Your task to perform on an android device: turn pop-ups on in chrome Image 0: 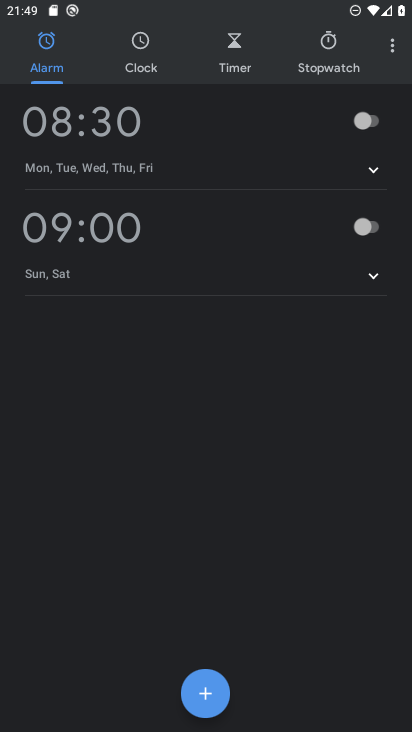
Step 0: press home button
Your task to perform on an android device: turn pop-ups on in chrome Image 1: 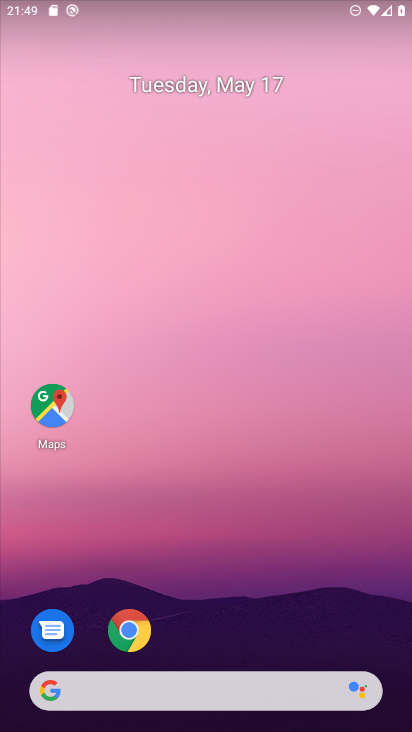
Step 1: drag from (275, 605) to (288, 189)
Your task to perform on an android device: turn pop-ups on in chrome Image 2: 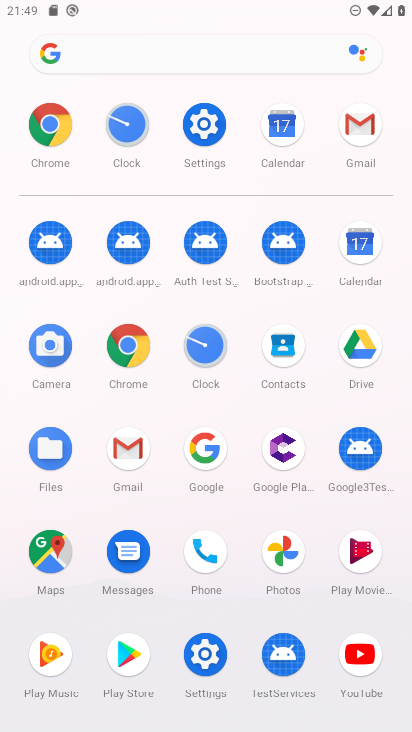
Step 2: click (148, 354)
Your task to perform on an android device: turn pop-ups on in chrome Image 3: 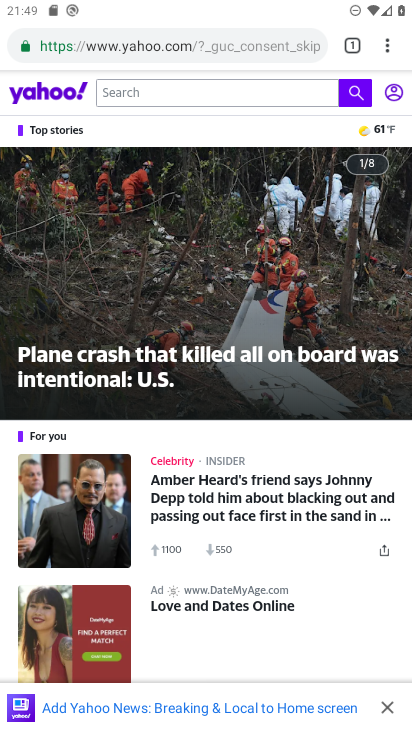
Step 3: click (388, 54)
Your task to perform on an android device: turn pop-ups on in chrome Image 4: 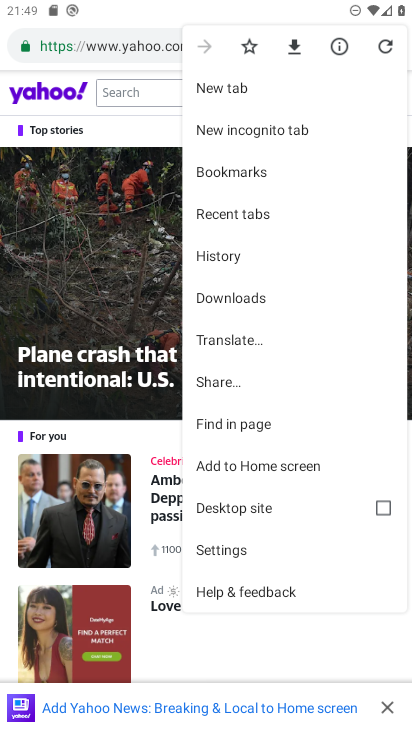
Step 4: click (249, 558)
Your task to perform on an android device: turn pop-ups on in chrome Image 5: 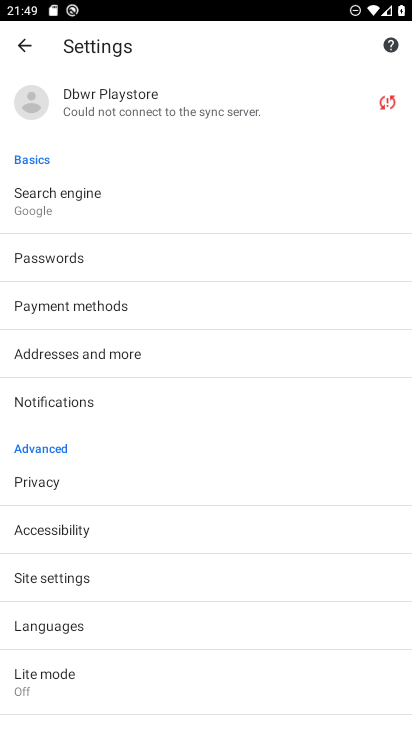
Step 5: drag from (292, 563) to (290, 412)
Your task to perform on an android device: turn pop-ups on in chrome Image 6: 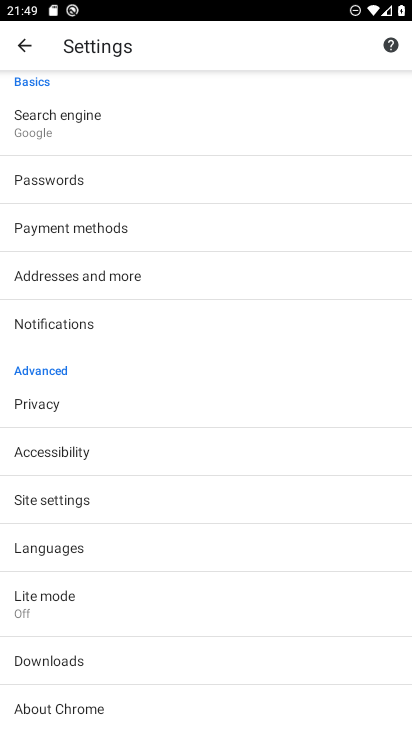
Step 6: drag from (272, 577) to (270, 475)
Your task to perform on an android device: turn pop-ups on in chrome Image 7: 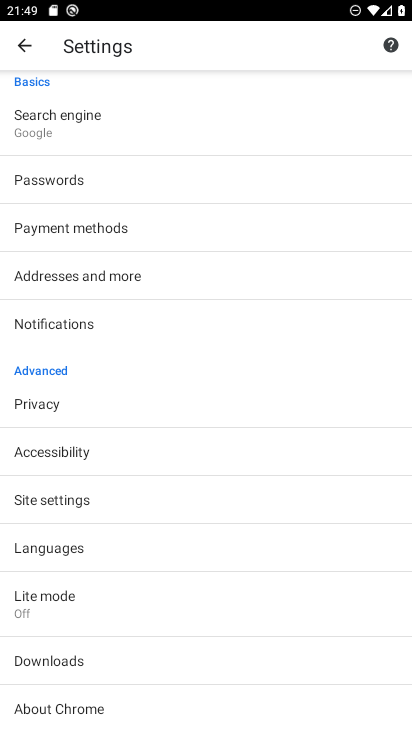
Step 7: drag from (289, 612) to (288, 435)
Your task to perform on an android device: turn pop-ups on in chrome Image 8: 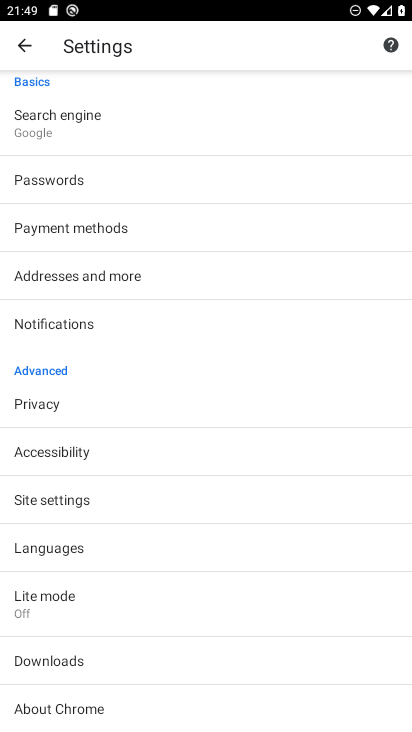
Step 8: click (231, 505)
Your task to perform on an android device: turn pop-ups on in chrome Image 9: 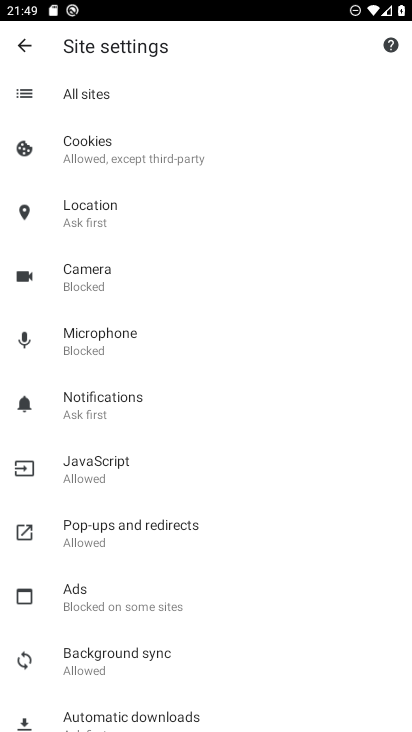
Step 9: drag from (271, 603) to (265, 466)
Your task to perform on an android device: turn pop-ups on in chrome Image 10: 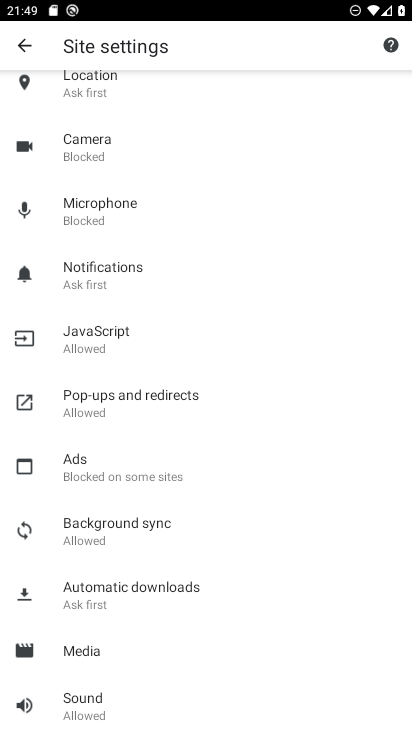
Step 10: drag from (282, 582) to (282, 483)
Your task to perform on an android device: turn pop-ups on in chrome Image 11: 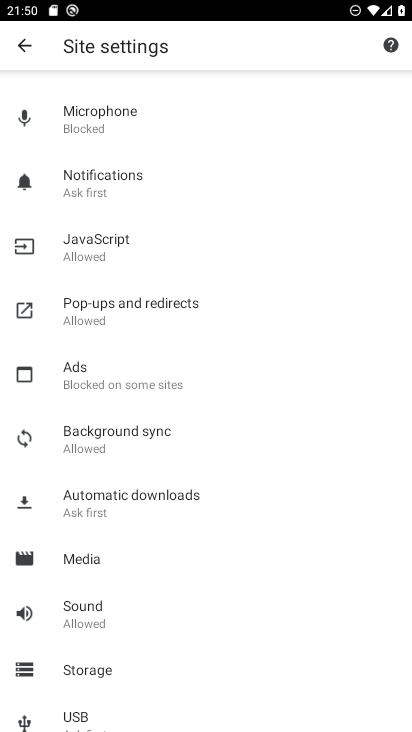
Step 11: drag from (297, 618) to (295, 517)
Your task to perform on an android device: turn pop-ups on in chrome Image 12: 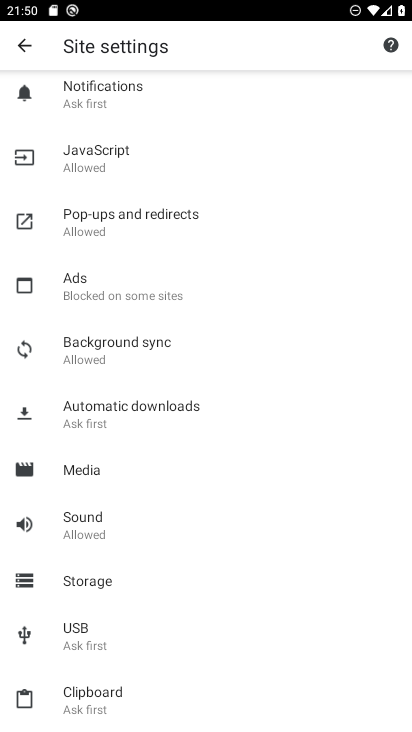
Step 12: drag from (294, 576) to (294, 495)
Your task to perform on an android device: turn pop-ups on in chrome Image 13: 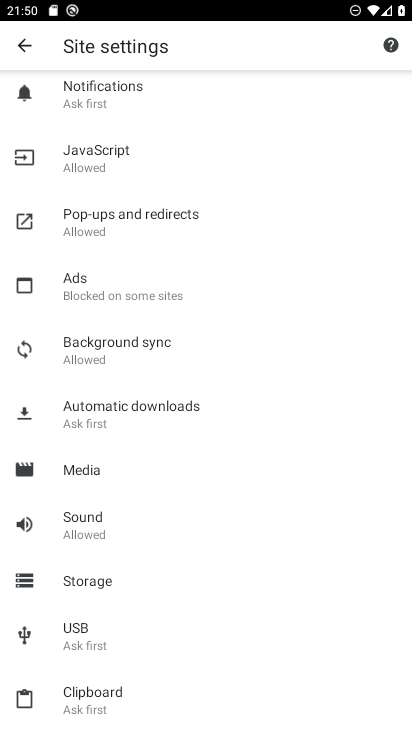
Step 13: drag from (310, 299) to (295, 388)
Your task to perform on an android device: turn pop-ups on in chrome Image 14: 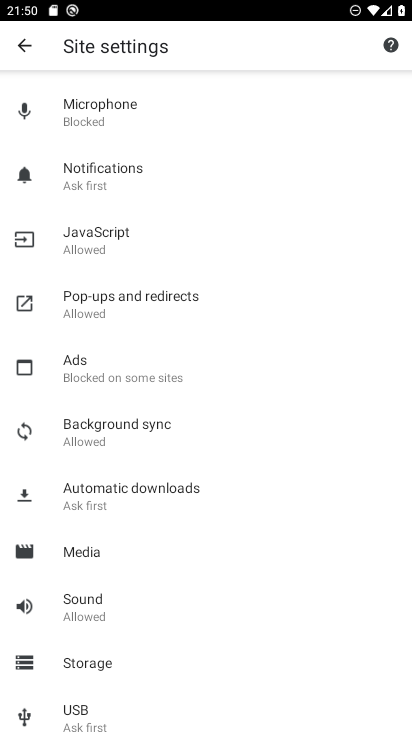
Step 14: drag from (313, 285) to (306, 382)
Your task to perform on an android device: turn pop-ups on in chrome Image 15: 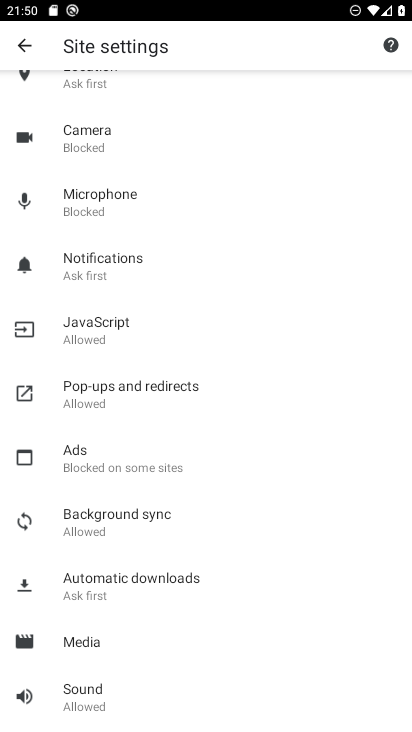
Step 15: drag from (305, 284) to (298, 393)
Your task to perform on an android device: turn pop-ups on in chrome Image 16: 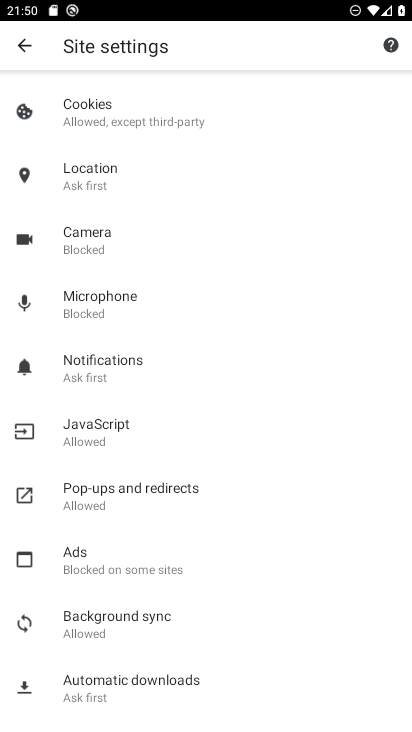
Step 16: drag from (314, 290) to (304, 373)
Your task to perform on an android device: turn pop-ups on in chrome Image 17: 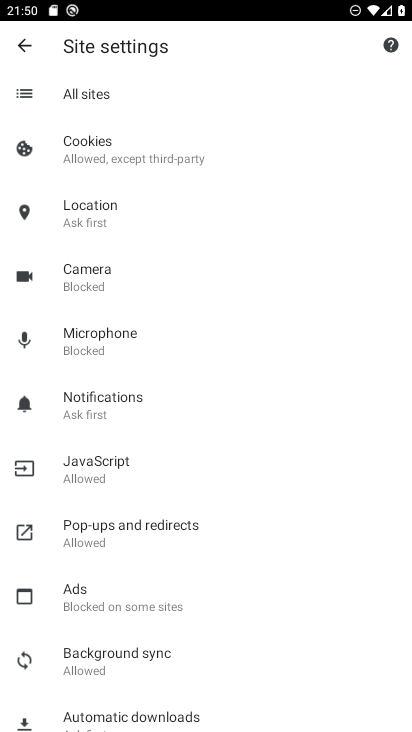
Step 17: drag from (312, 263) to (298, 372)
Your task to perform on an android device: turn pop-ups on in chrome Image 18: 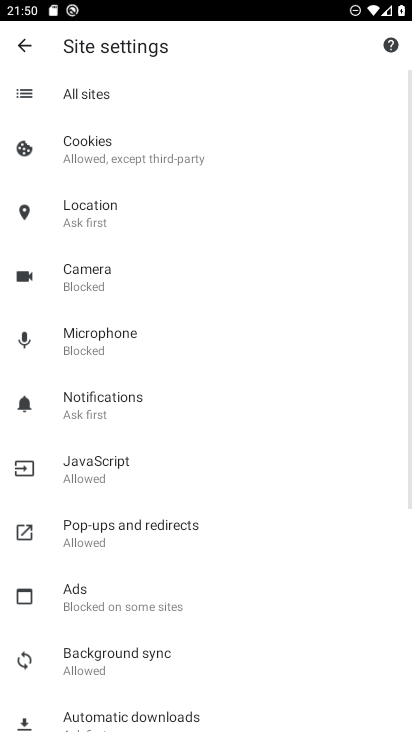
Step 18: drag from (306, 462) to (303, 382)
Your task to perform on an android device: turn pop-ups on in chrome Image 19: 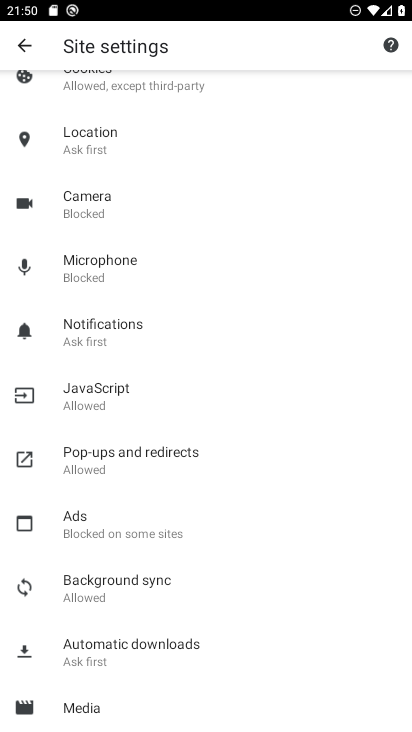
Step 19: drag from (288, 473) to (288, 392)
Your task to perform on an android device: turn pop-ups on in chrome Image 20: 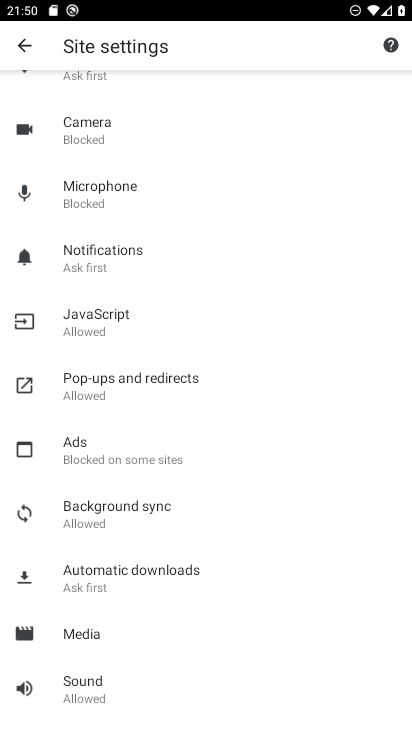
Step 20: drag from (281, 484) to (291, 414)
Your task to perform on an android device: turn pop-ups on in chrome Image 21: 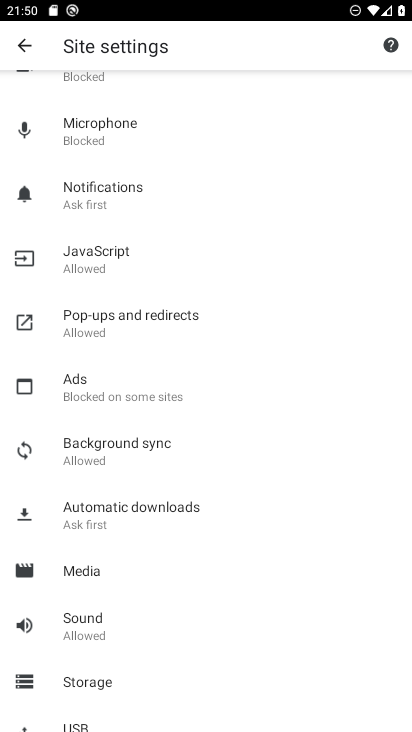
Step 21: drag from (291, 493) to (291, 438)
Your task to perform on an android device: turn pop-ups on in chrome Image 22: 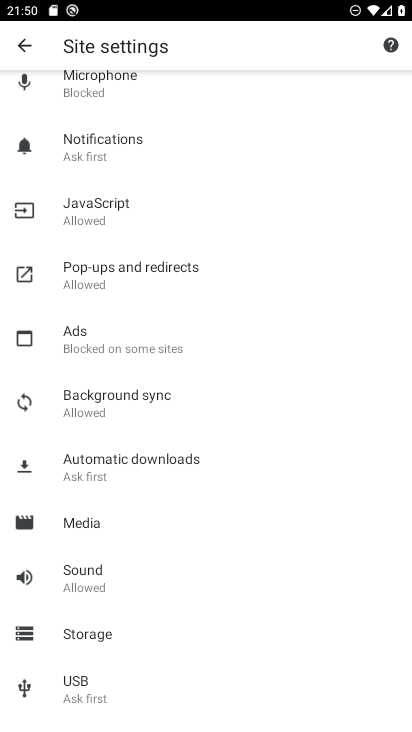
Step 22: drag from (285, 485) to (288, 417)
Your task to perform on an android device: turn pop-ups on in chrome Image 23: 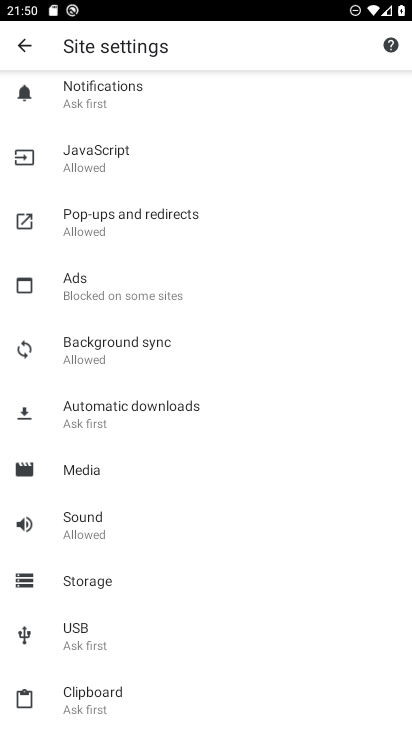
Step 23: drag from (275, 476) to (285, 417)
Your task to perform on an android device: turn pop-ups on in chrome Image 24: 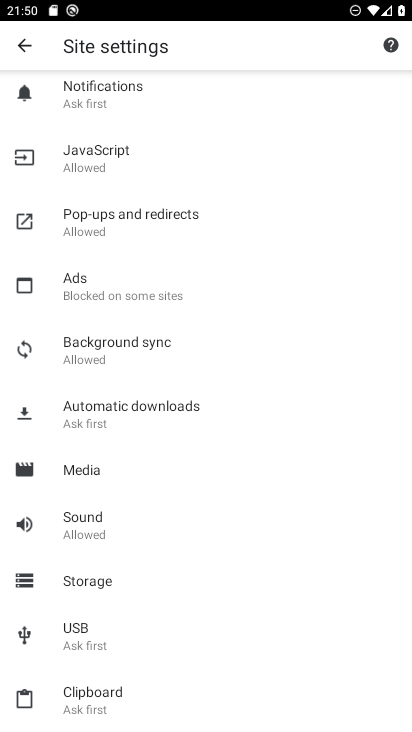
Step 24: drag from (270, 476) to (277, 425)
Your task to perform on an android device: turn pop-ups on in chrome Image 25: 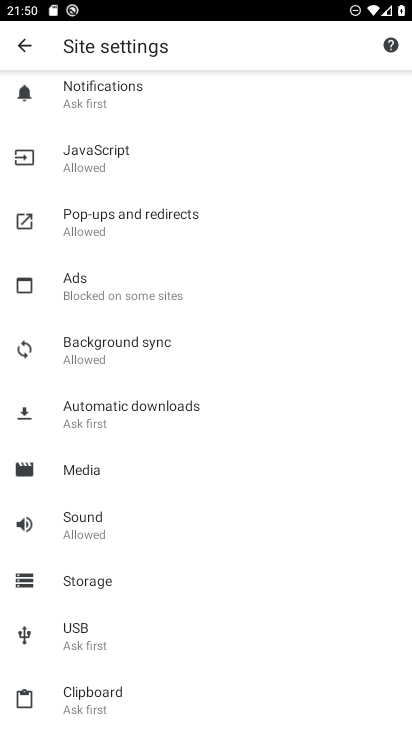
Step 25: drag from (278, 443) to (276, 379)
Your task to perform on an android device: turn pop-ups on in chrome Image 26: 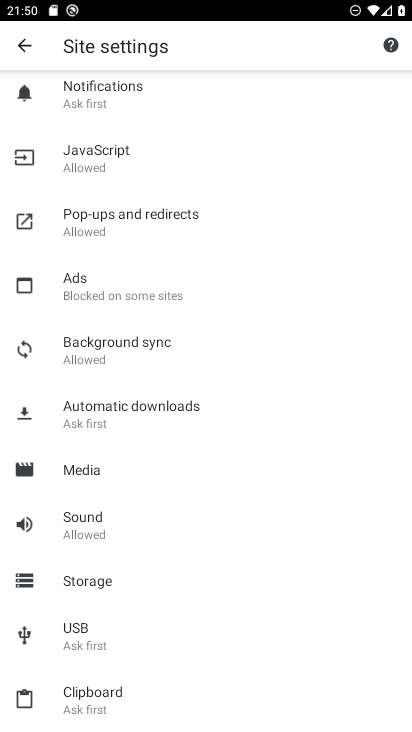
Step 26: drag from (279, 347) to (276, 430)
Your task to perform on an android device: turn pop-ups on in chrome Image 27: 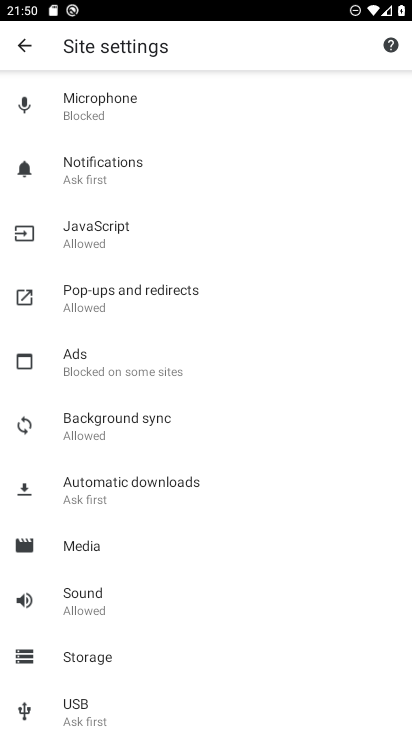
Step 27: drag from (280, 351) to (267, 405)
Your task to perform on an android device: turn pop-ups on in chrome Image 28: 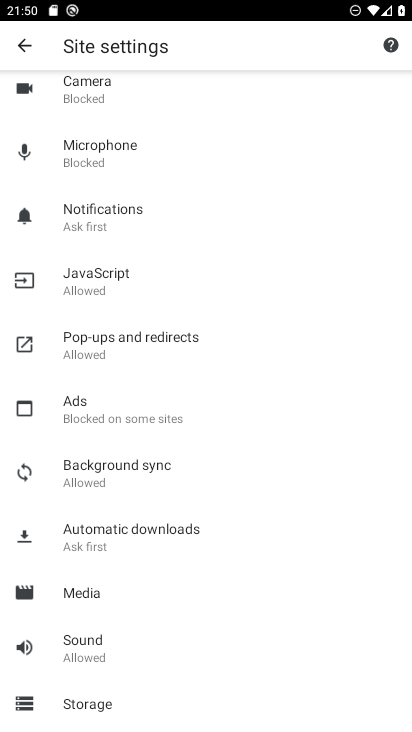
Step 28: drag from (263, 329) to (254, 392)
Your task to perform on an android device: turn pop-ups on in chrome Image 29: 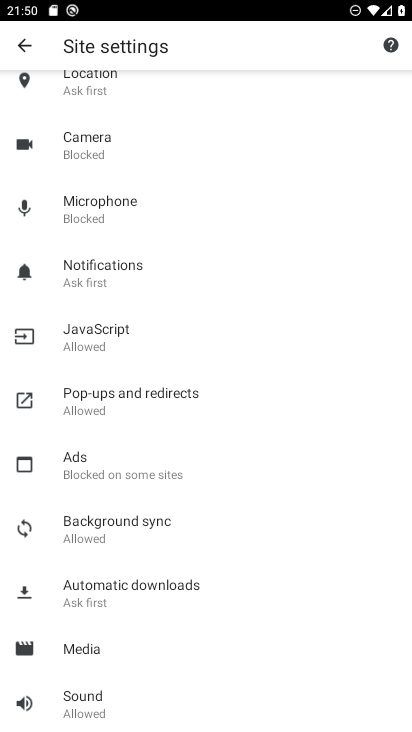
Step 29: click (198, 393)
Your task to perform on an android device: turn pop-ups on in chrome Image 30: 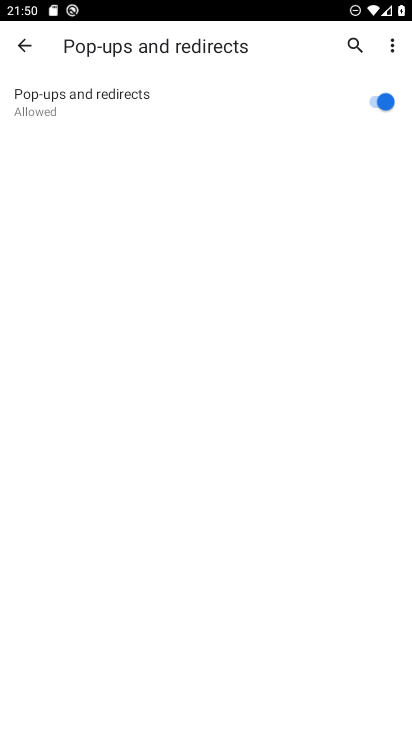
Step 30: task complete